Your task to perform on an android device: change notifications settings Image 0: 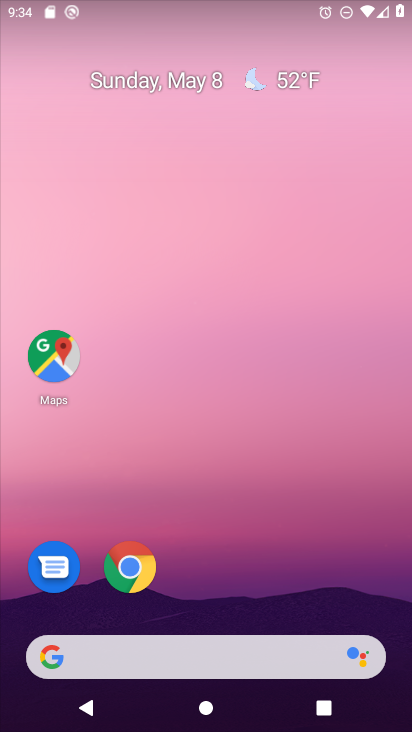
Step 0: drag from (298, 569) to (338, 118)
Your task to perform on an android device: change notifications settings Image 1: 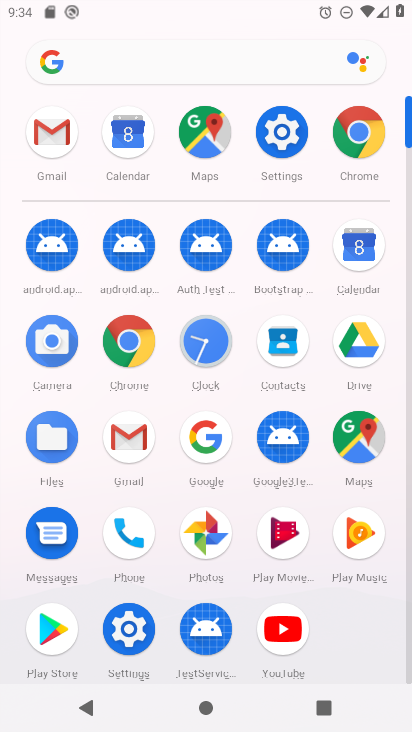
Step 1: click (279, 131)
Your task to perform on an android device: change notifications settings Image 2: 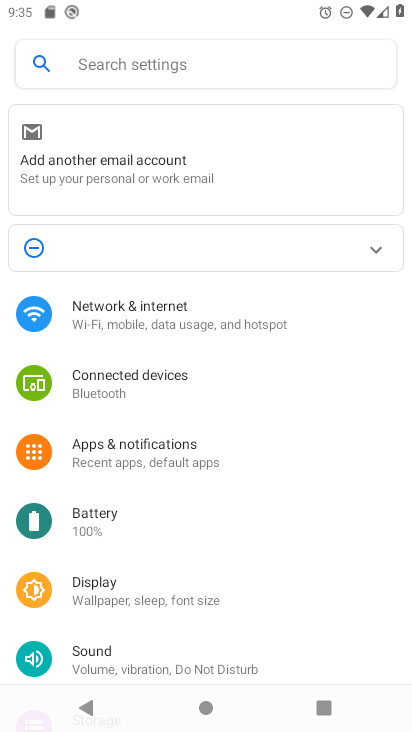
Step 2: click (140, 479)
Your task to perform on an android device: change notifications settings Image 3: 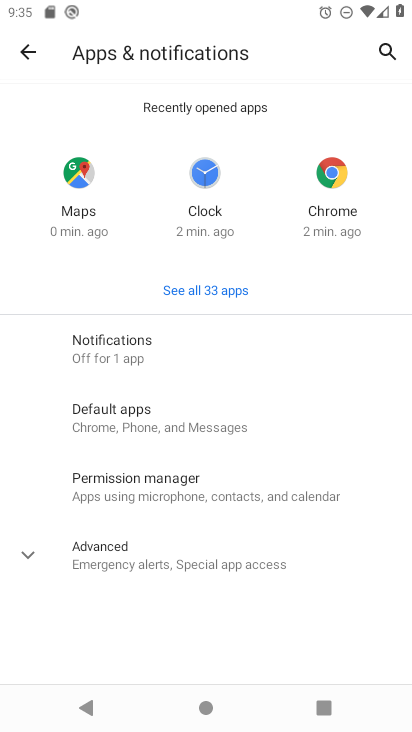
Step 3: click (146, 361)
Your task to perform on an android device: change notifications settings Image 4: 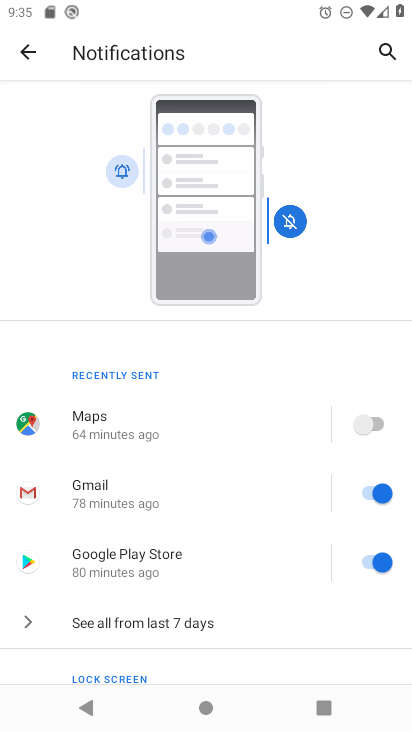
Step 4: click (376, 510)
Your task to perform on an android device: change notifications settings Image 5: 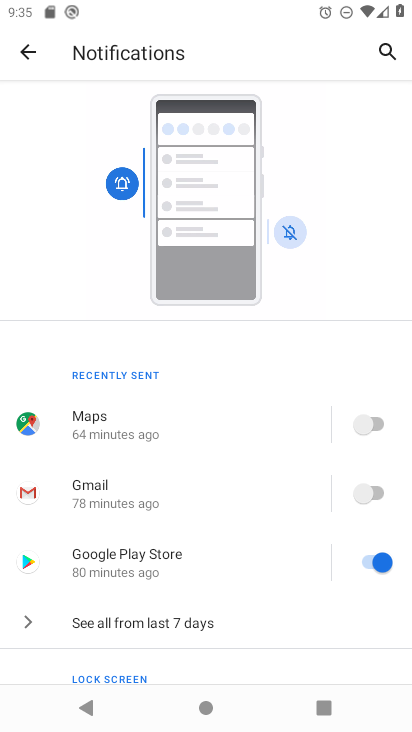
Step 5: task complete